Your task to perform on an android device: Open ESPN.com Image 0: 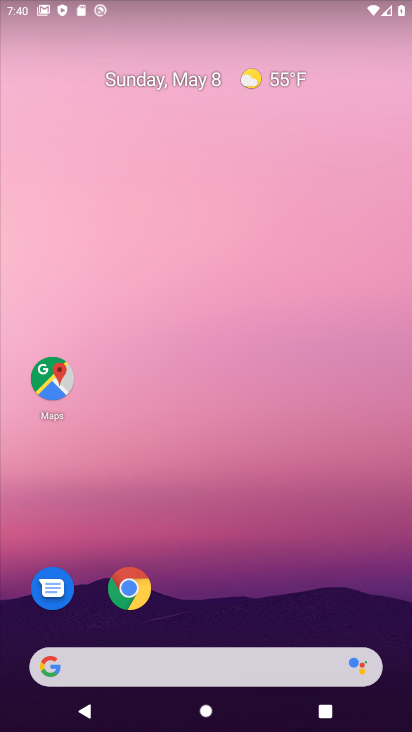
Step 0: drag from (295, 635) to (233, 42)
Your task to perform on an android device: Open ESPN.com Image 1: 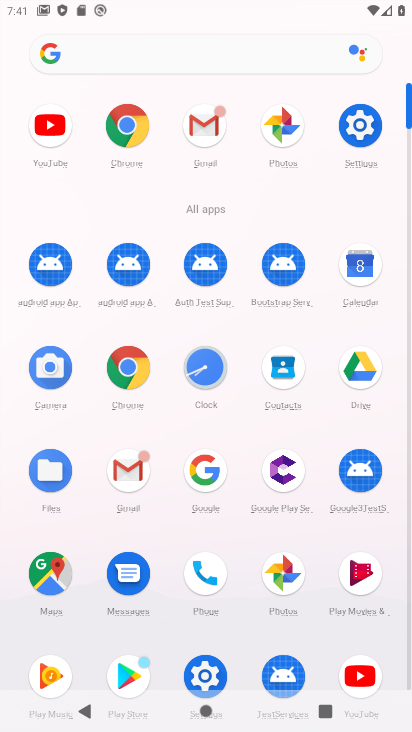
Step 1: click (122, 380)
Your task to perform on an android device: Open ESPN.com Image 2: 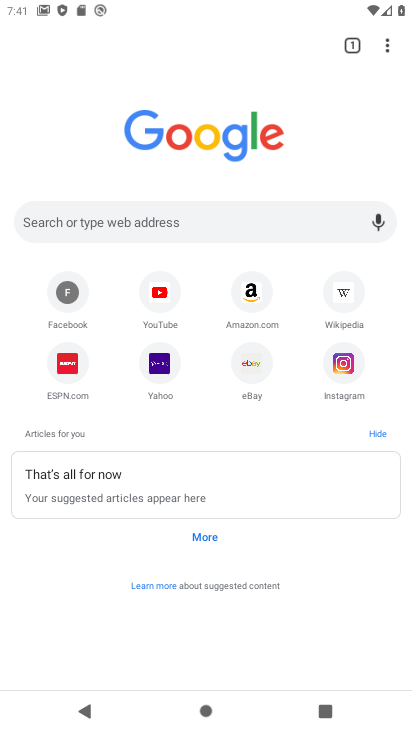
Step 2: click (84, 364)
Your task to perform on an android device: Open ESPN.com Image 3: 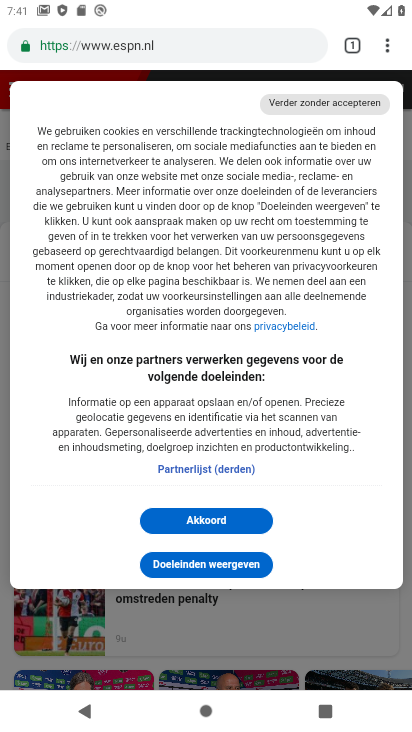
Step 3: task complete